Your task to perform on an android device: manage bookmarks in the chrome app Image 0: 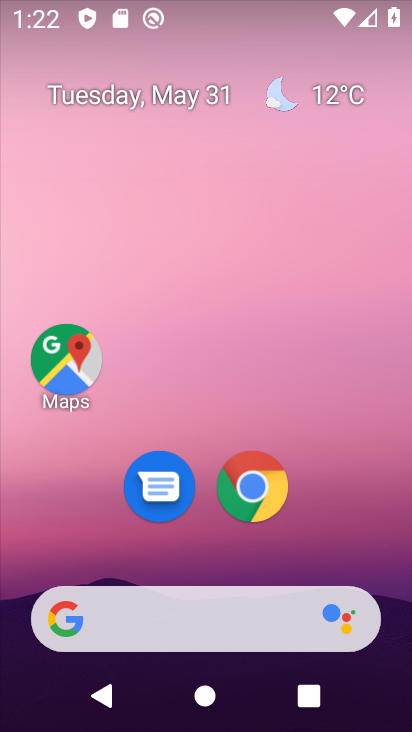
Step 0: click (265, 486)
Your task to perform on an android device: manage bookmarks in the chrome app Image 1: 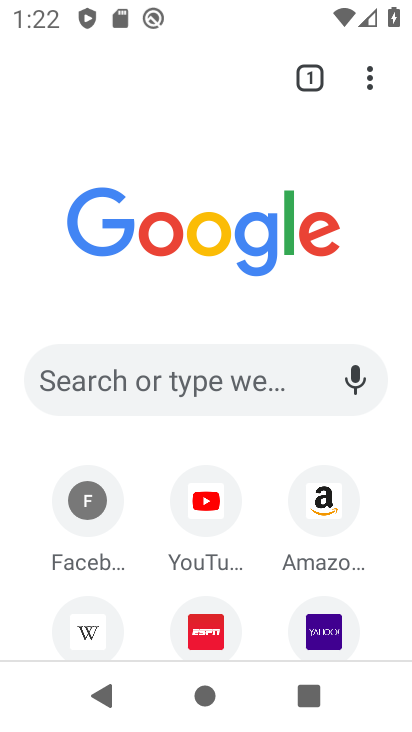
Step 1: click (369, 82)
Your task to perform on an android device: manage bookmarks in the chrome app Image 2: 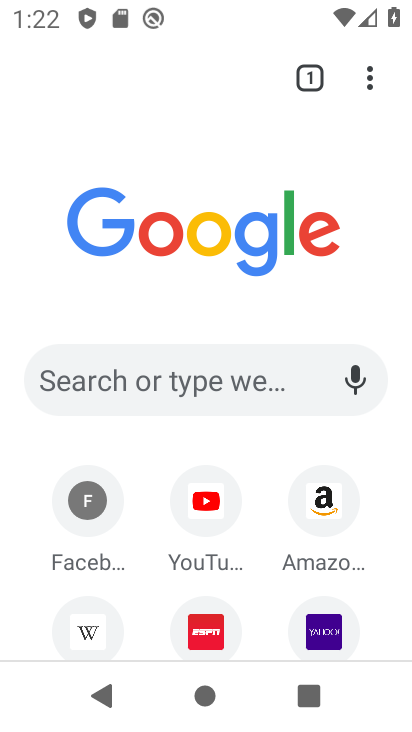
Step 2: click (375, 72)
Your task to perform on an android device: manage bookmarks in the chrome app Image 3: 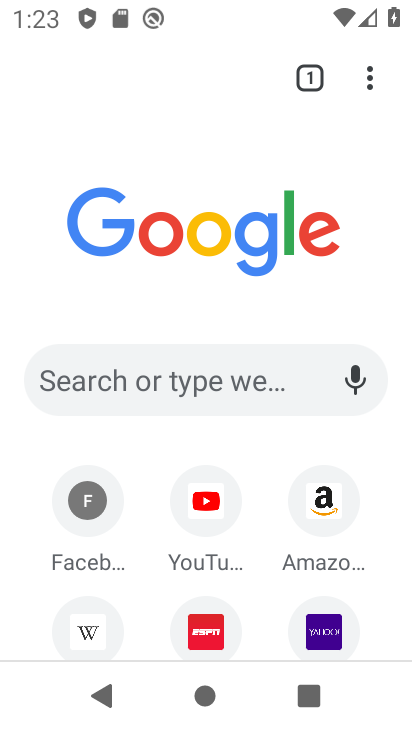
Step 3: click (366, 86)
Your task to perform on an android device: manage bookmarks in the chrome app Image 4: 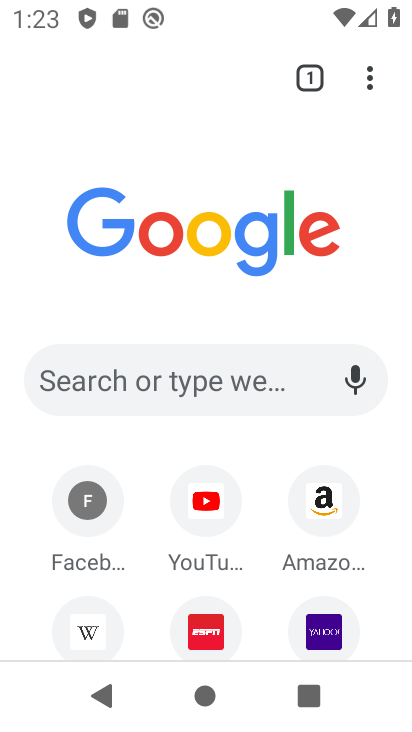
Step 4: click (366, 86)
Your task to perform on an android device: manage bookmarks in the chrome app Image 5: 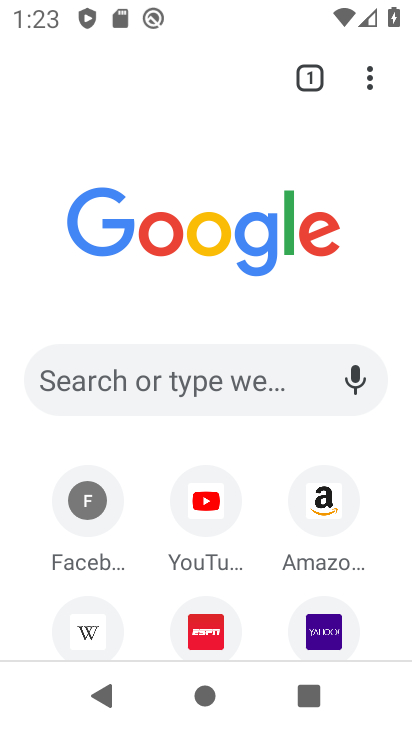
Step 5: click (372, 78)
Your task to perform on an android device: manage bookmarks in the chrome app Image 6: 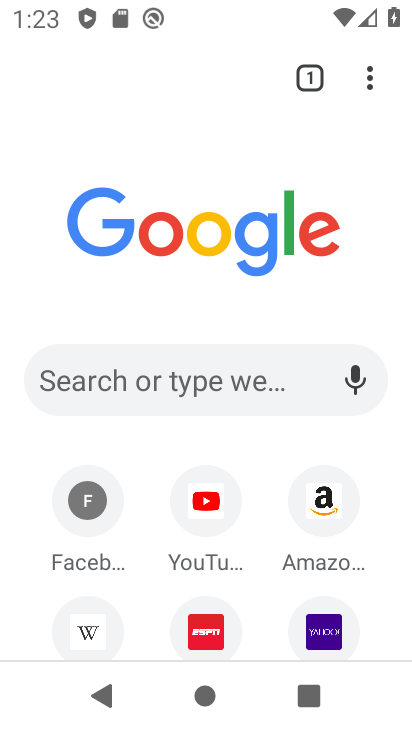
Step 6: click (375, 86)
Your task to perform on an android device: manage bookmarks in the chrome app Image 7: 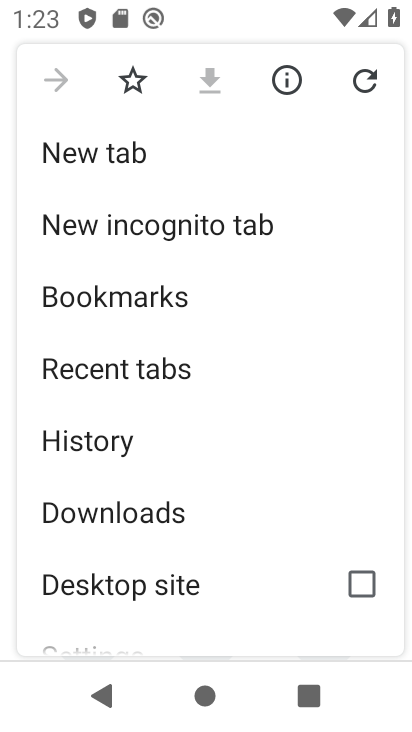
Step 7: drag from (189, 491) to (180, 235)
Your task to perform on an android device: manage bookmarks in the chrome app Image 8: 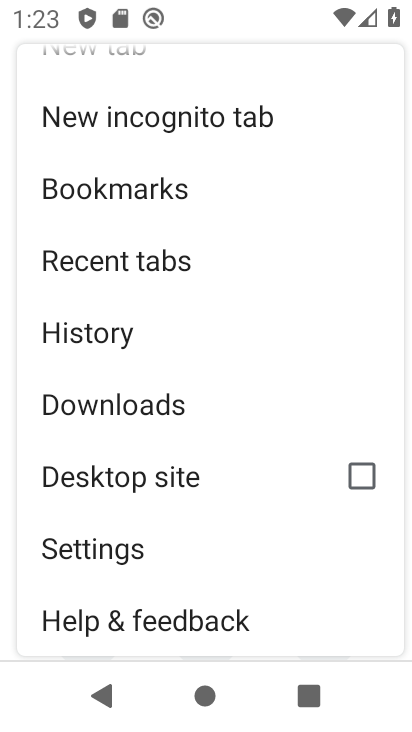
Step 8: drag from (136, 521) to (136, 368)
Your task to perform on an android device: manage bookmarks in the chrome app Image 9: 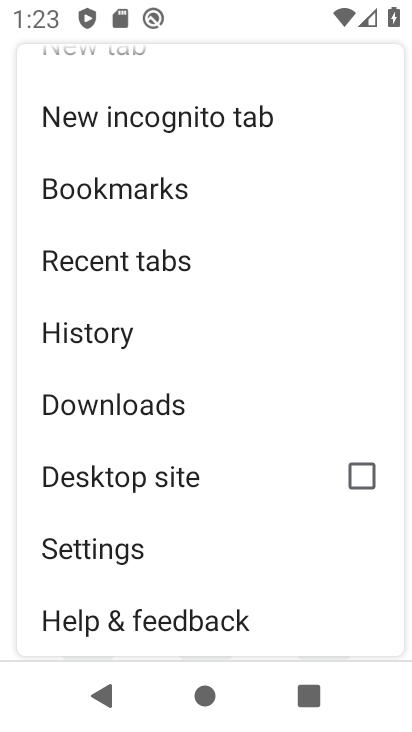
Step 9: click (149, 193)
Your task to perform on an android device: manage bookmarks in the chrome app Image 10: 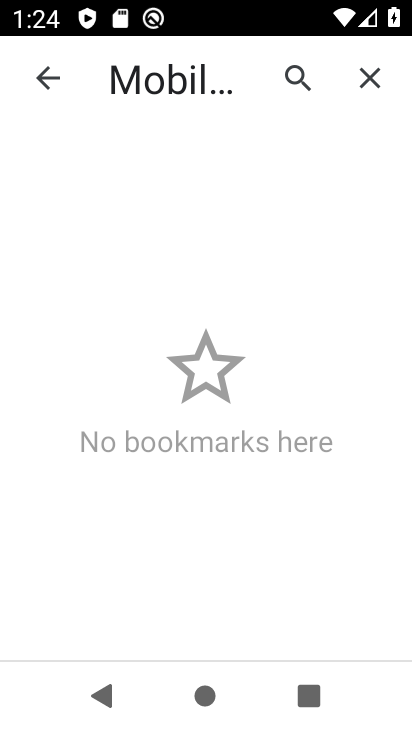
Step 10: task complete